Your task to perform on an android device: Open settings on Google Maps Image 0: 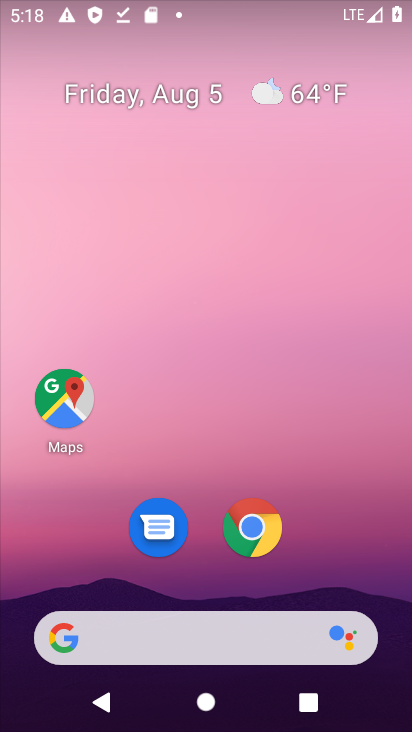
Step 0: click (235, 267)
Your task to perform on an android device: Open settings on Google Maps Image 1: 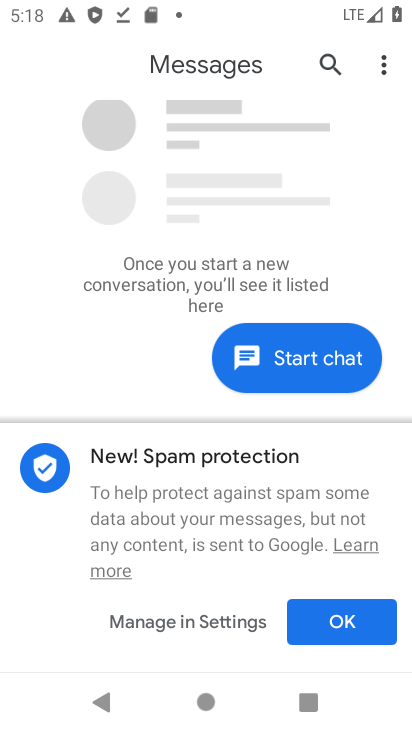
Step 1: press home button
Your task to perform on an android device: Open settings on Google Maps Image 2: 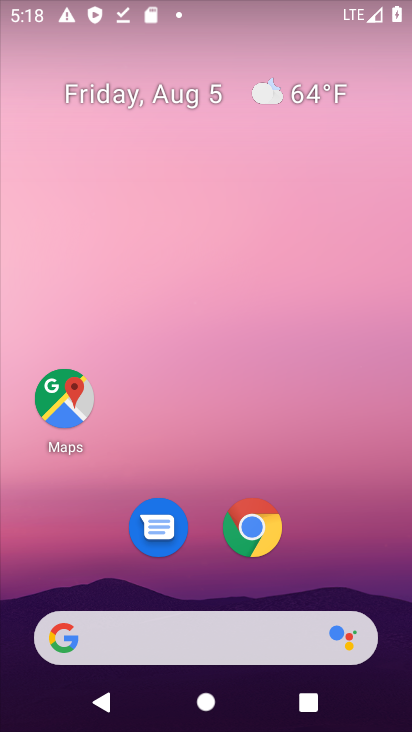
Step 2: drag from (294, 586) to (225, 272)
Your task to perform on an android device: Open settings on Google Maps Image 3: 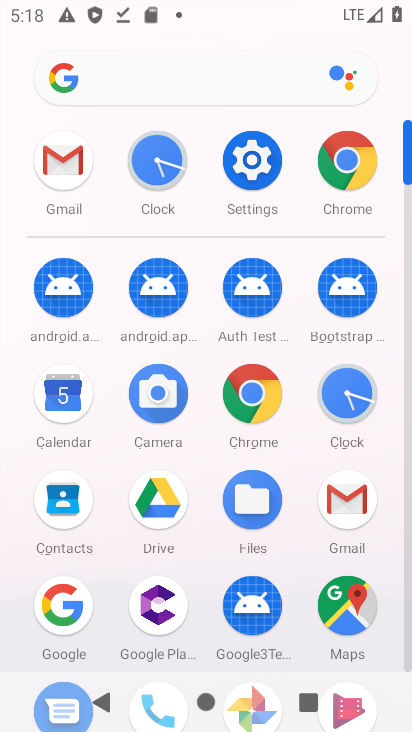
Step 3: click (335, 610)
Your task to perform on an android device: Open settings on Google Maps Image 4: 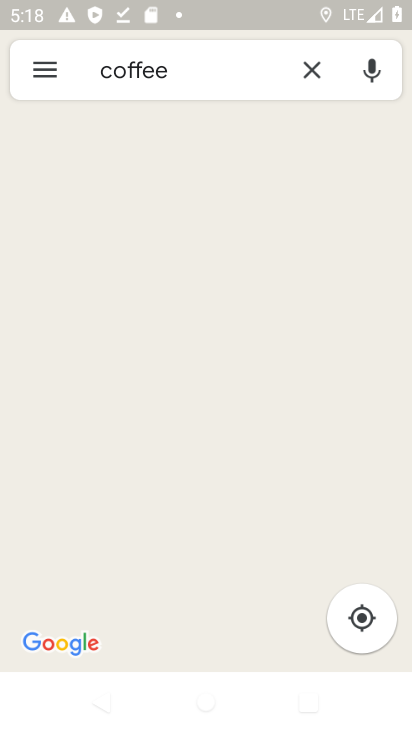
Step 4: click (320, 68)
Your task to perform on an android device: Open settings on Google Maps Image 5: 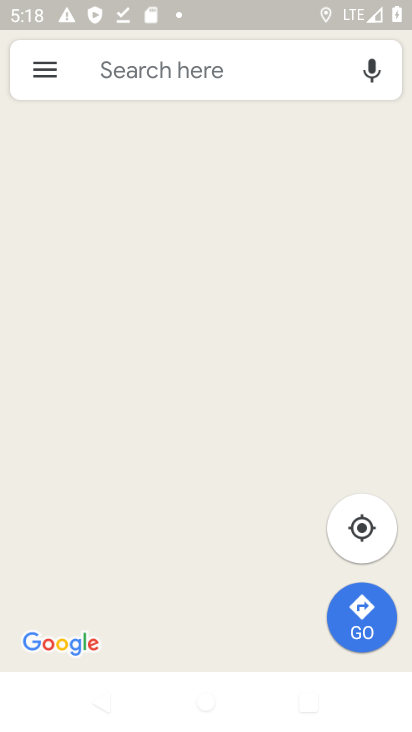
Step 5: click (229, 71)
Your task to perform on an android device: Open settings on Google Maps Image 6: 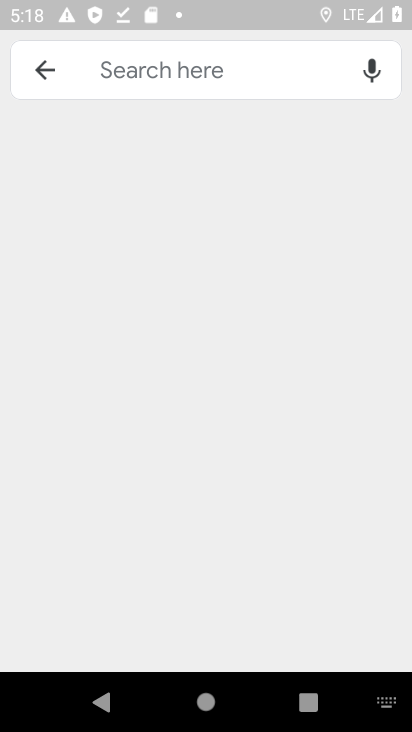
Step 6: click (44, 58)
Your task to perform on an android device: Open settings on Google Maps Image 7: 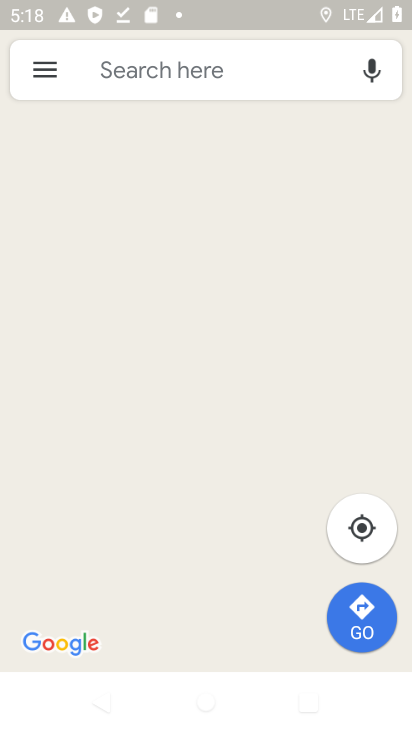
Step 7: click (52, 65)
Your task to perform on an android device: Open settings on Google Maps Image 8: 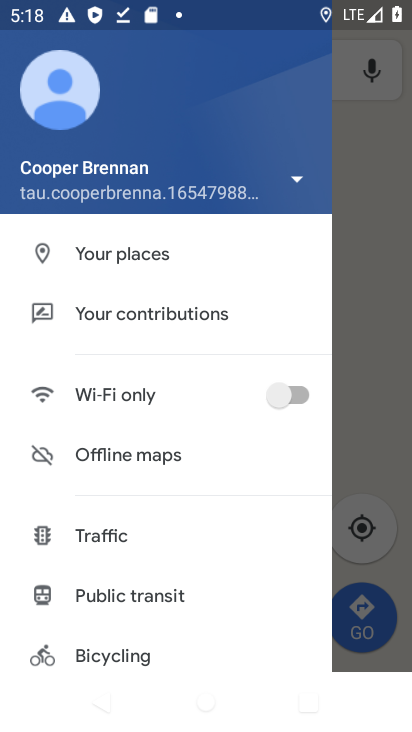
Step 8: drag from (172, 604) to (179, 146)
Your task to perform on an android device: Open settings on Google Maps Image 9: 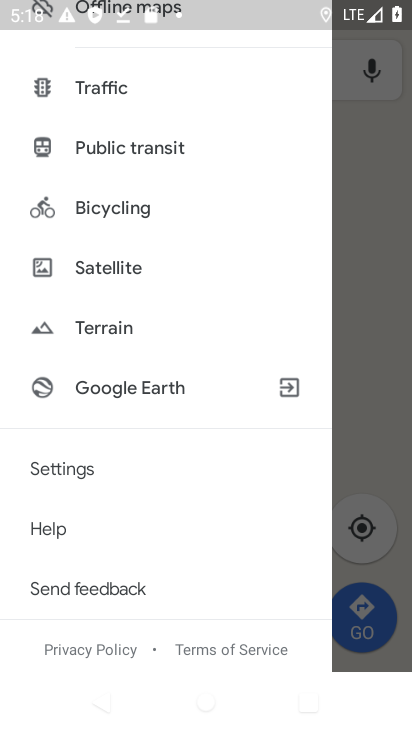
Step 9: click (95, 458)
Your task to perform on an android device: Open settings on Google Maps Image 10: 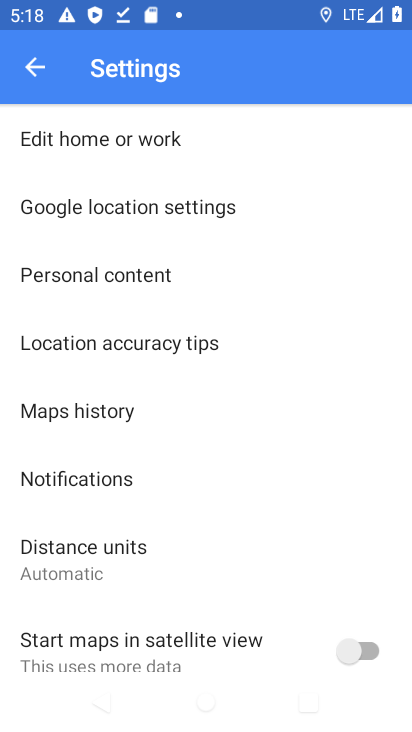
Step 10: drag from (266, 547) to (286, 398)
Your task to perform on an android device: Open settings on Google Maps Image 11: 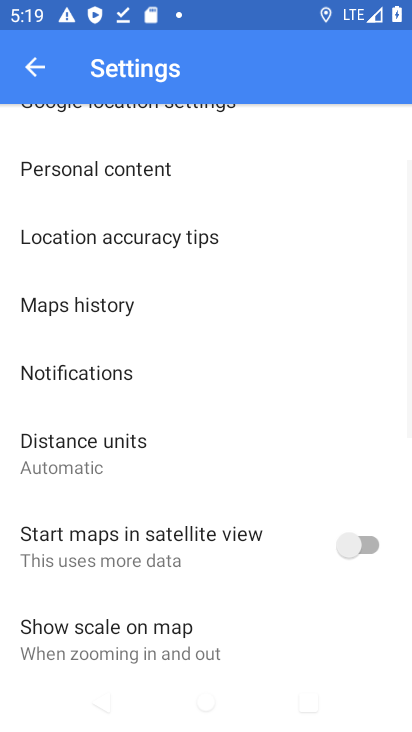
Step 11: drag from (203, 543) to (229, 335)
Your task to perform on an android device: Open settings on Google Maps Image 12: 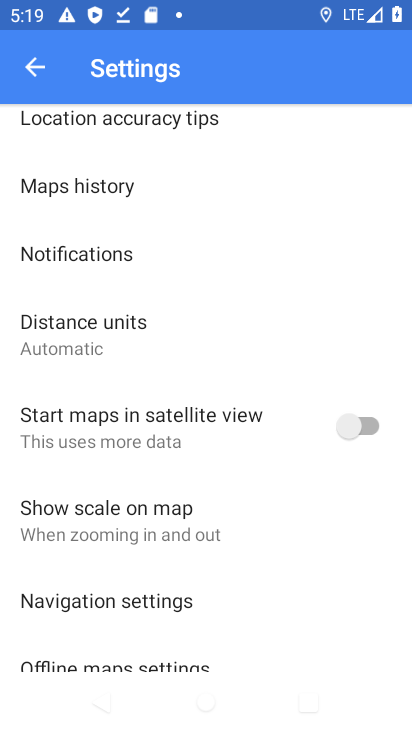
Step 12: click (46, 80)
Your task to perform on an android device: Open settings on Google Maps Image 13: 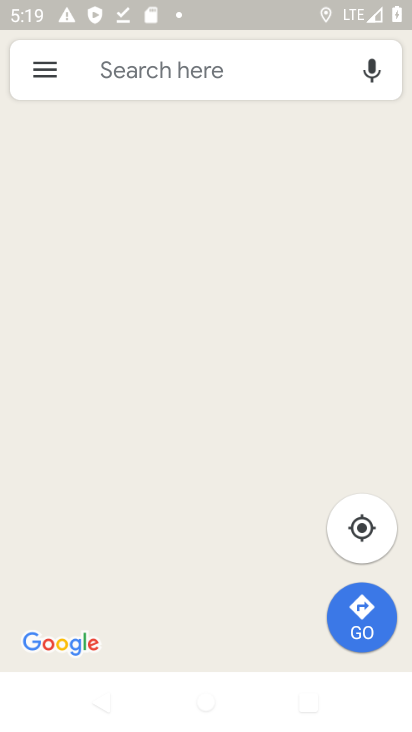
Step 13: task complete